Your task to perform on an android device: turn on data saver in the chrome app Image 0: 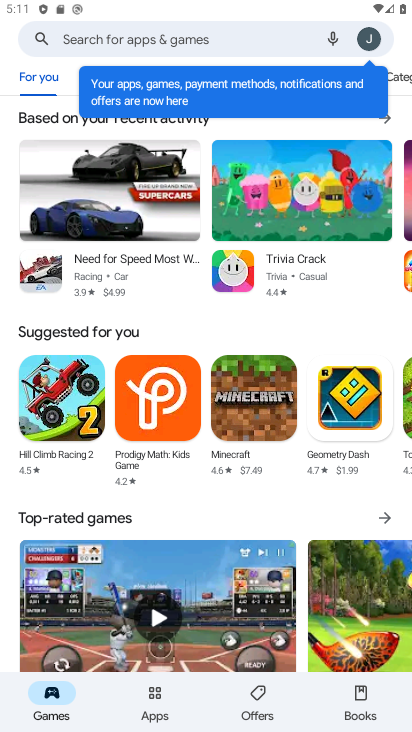
Step 0: press home button
Your task to perform on an android device: turn on data saver in the chrome app Image 1: 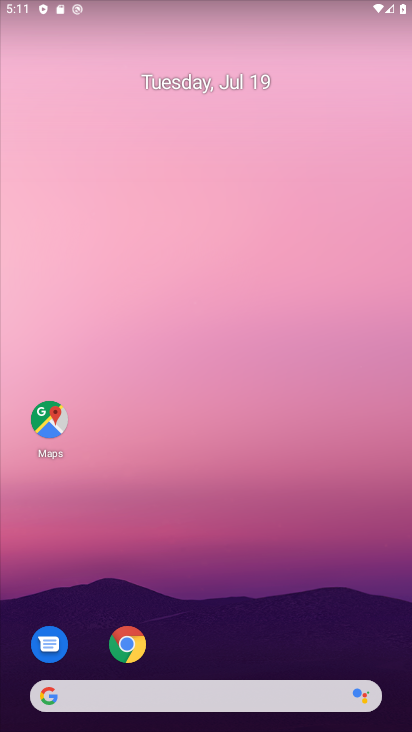
Step 1: click (131, 649)
Your task to perform on an android device: turn on data saver in the chrome app Image 2: 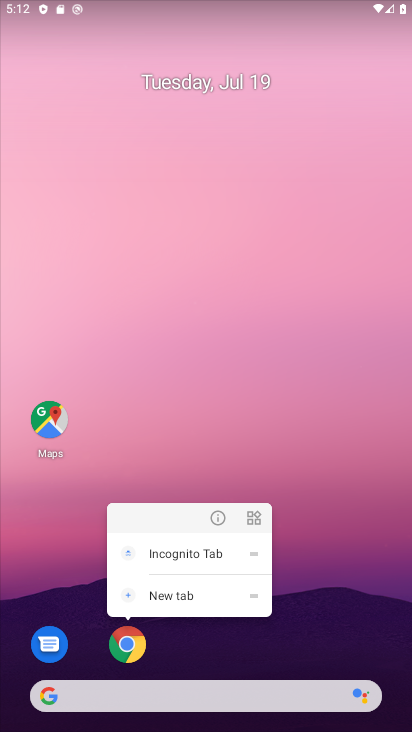
Step 2: click (124, 645)
Your task to perform on an android device: turn on data saver in the chrome app Image 3: 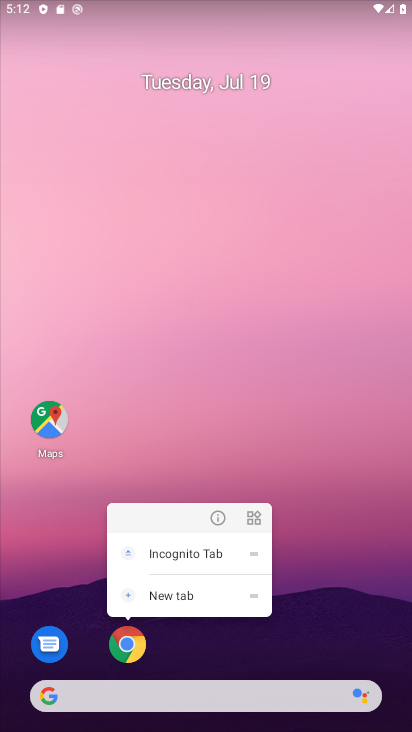
Step 3: click (138, 650)
Your task to perform on an android device: turn on data saver in the chrome app Image 4: 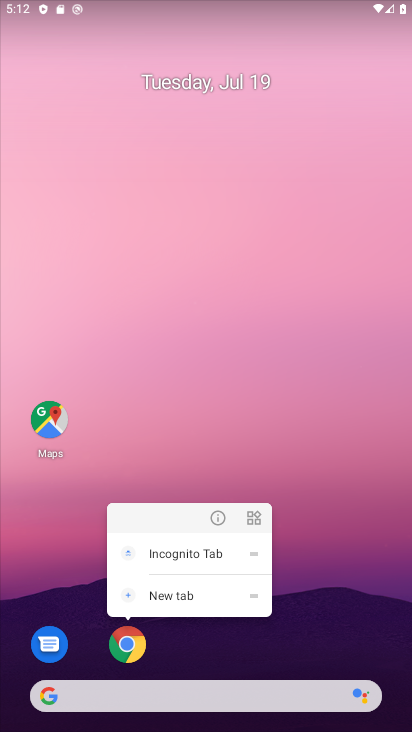
Step 4: click (138, 650)
Your task to perform on an android device: turn on data saver in the chrome app Image 5: 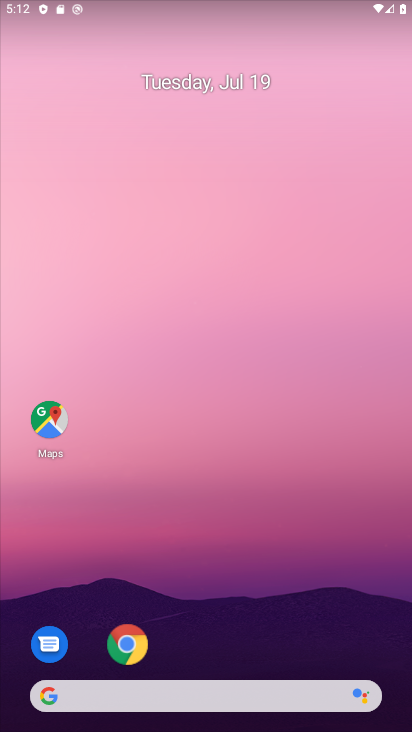
Step 5: click (318, 397)
Your task to perform on an android device: turn on data saver in the chrome app Image 6: 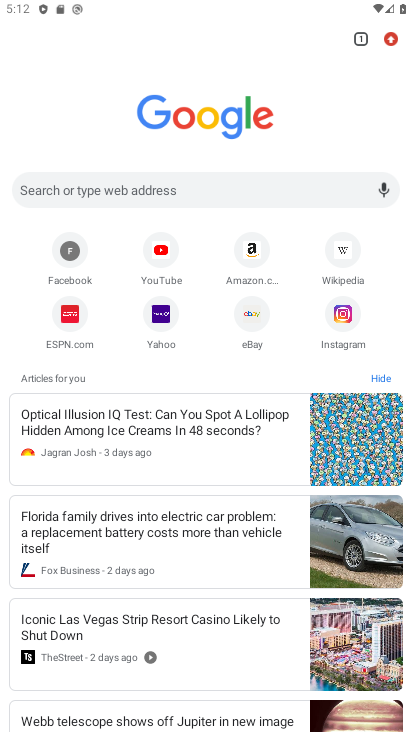
Step 6: click (394, 29)
Your task to perform on an android device: turn on data saver in the chrome app Image 7: 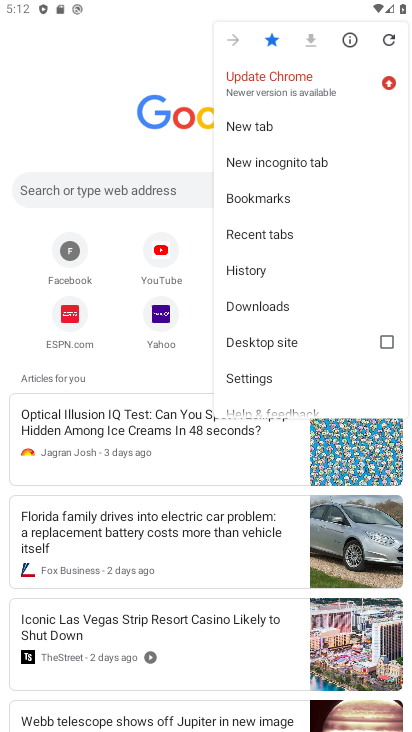
Step 7: click (262, 372)
Your task to perform on an android device: turn on data saver in the chrome app Image 8: 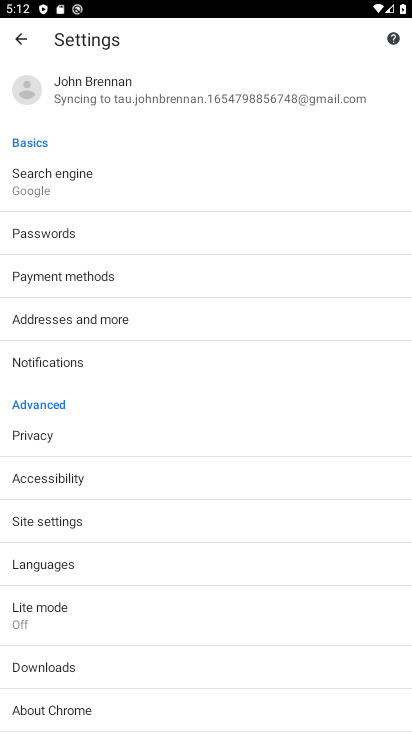
Step 8: task complete